Your task to perform on an android device: change the clock display to digital Image 0: 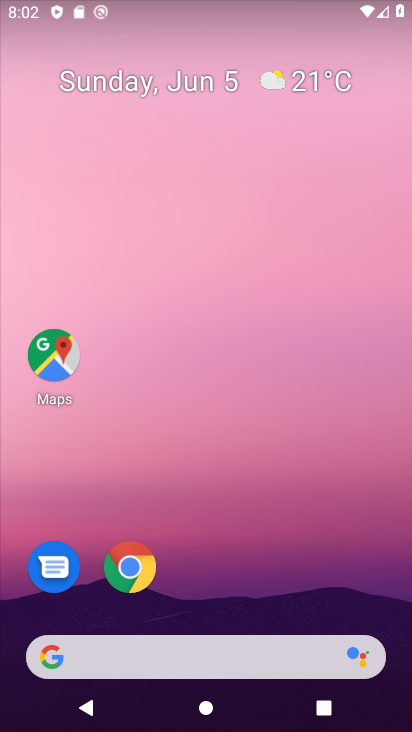
Step 0: drag from (227, 626) to (222, 316)
Your task to perform on an android device: change the clock display to digital Image 1: 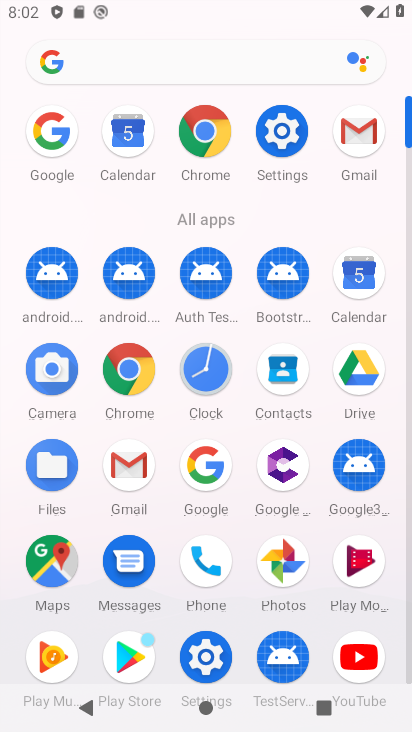
Step 1: click (193, 381)
Your task to perform on an android device: change the clock display to digital Image 2: 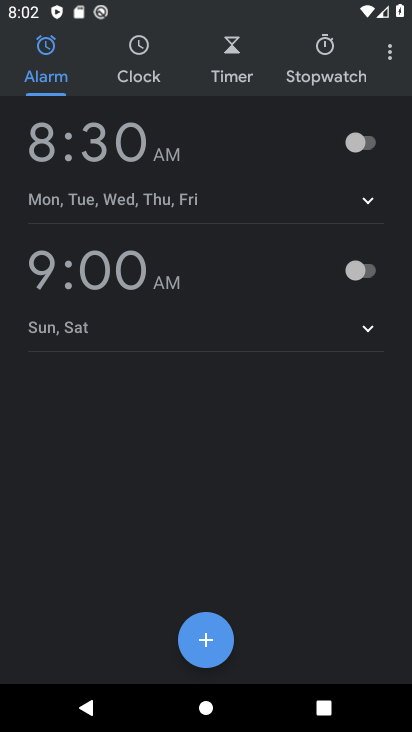
Step 2: click (397, 53)
Your task to perform on an android device: change the clock display to digital Image 3: 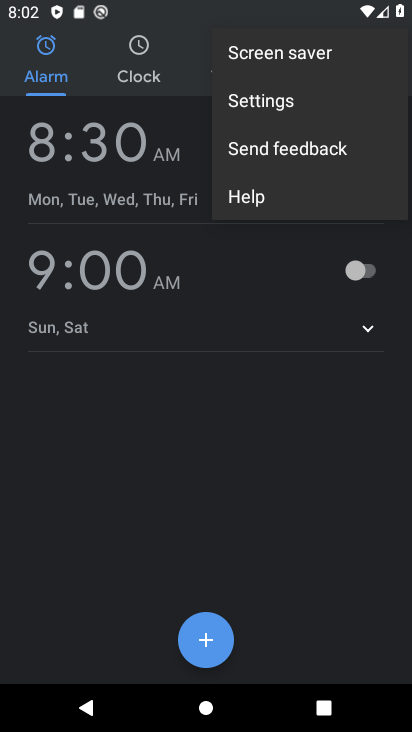
Step 3: click (270, 101)
Your task to perform on an android device: change the clock display to digital Image 4: 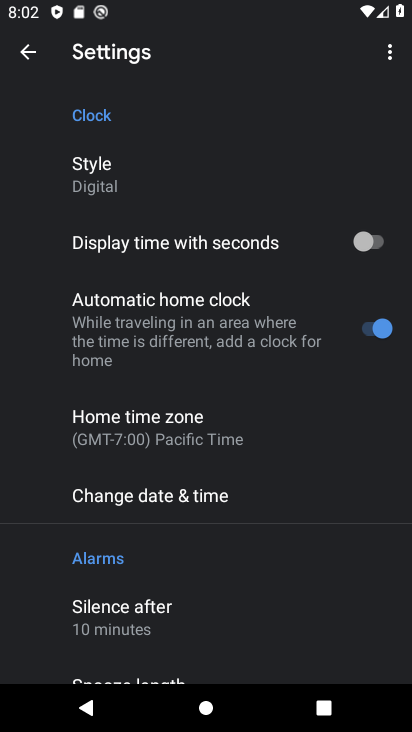
Step 4: click (103, 186)
Your task to perform on an android device: change the clock display to digital Image 5: 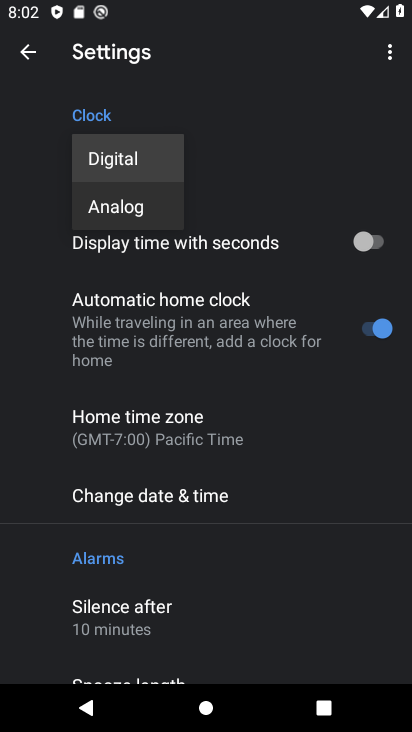
Step 5: click (92, 168)
Your task to perform on an android device: change the clock display to digital Image 6: 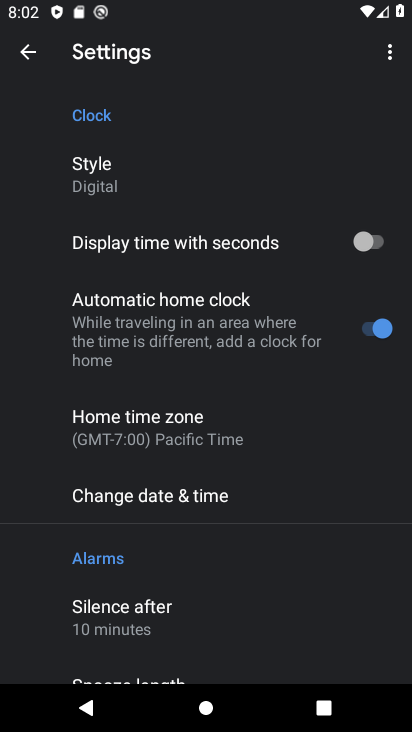
Step 6: task complete